Your task to perform on an android device: change your default location settings in chrome Image 0: 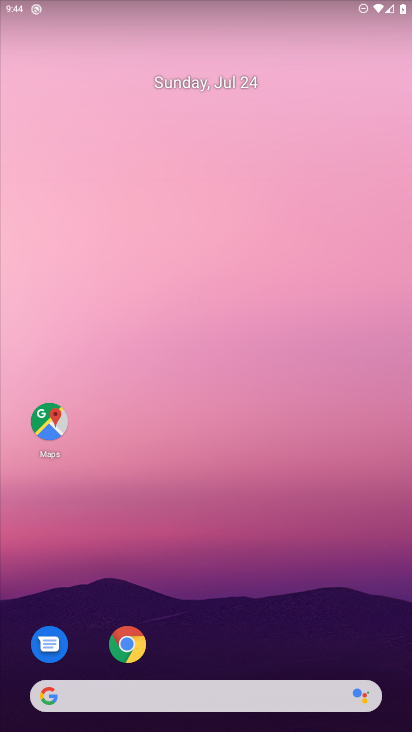
Step 0: drag from (306, 614) to (334, 21)
Your task to perform on an android device: change your default location settings in chrome Image 1: 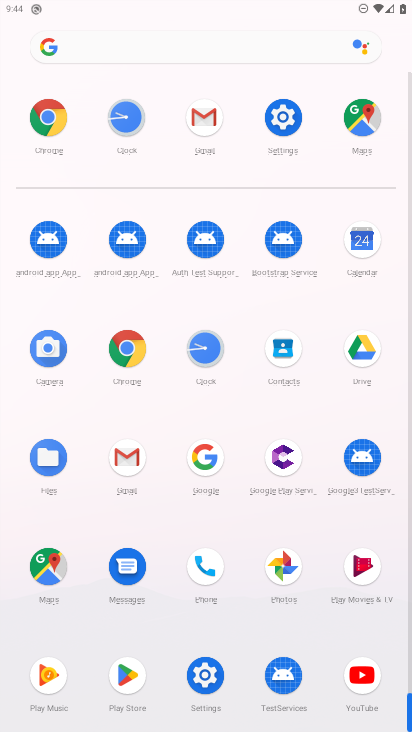
Step 1: click (130, 341)
Your task to perform on an android device: change your default location settings in chrome Image 2: 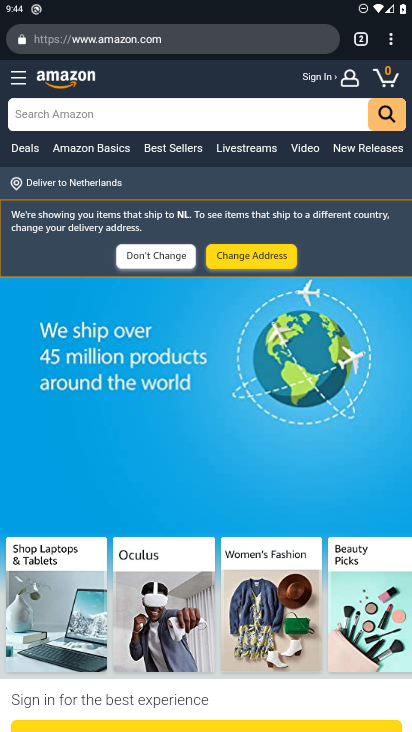
Step 2: press home button
Your task to perform on an android device: change your default location settings in chrome Image 3: 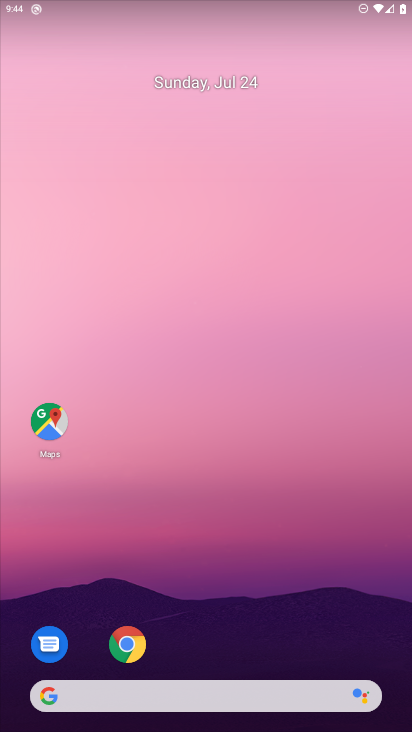
Step 3: drag from (276, 577) to (309, 102)
Your task to perform on an android device: change your default location settings in chrome Image 4: 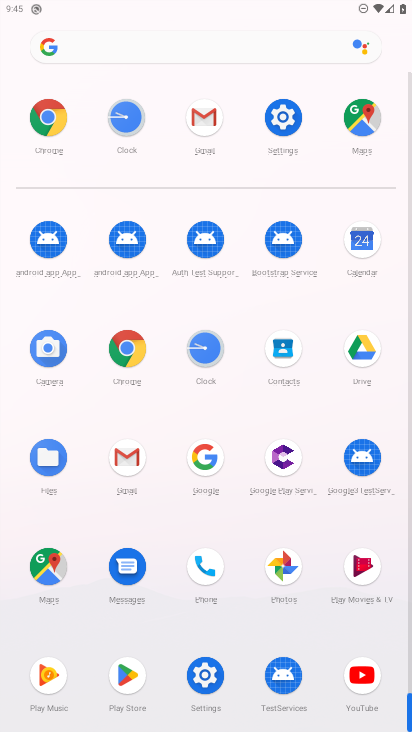
Step 4: drag from (147, 628) to (56, 57)
Your task to perform on an android device: change your default location settings in chrome Image 5: 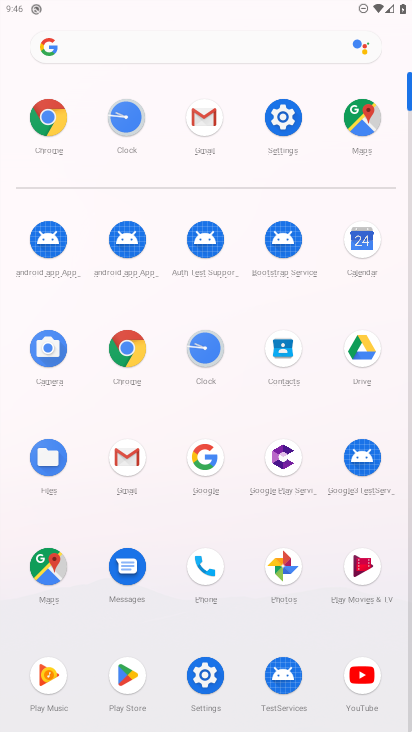
Step 5: click (186, 649)
Your task to perform on an android device: change your default location settings in chrome Image 6: 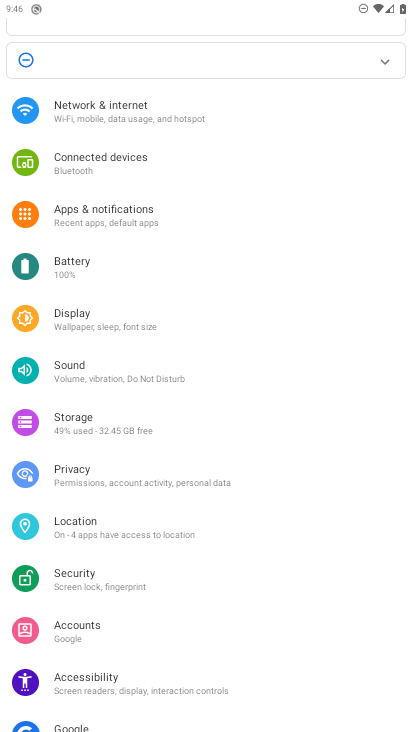
Step 6: press home button
Your task to perform on an android device: change your default location settings in chrome Image 7: 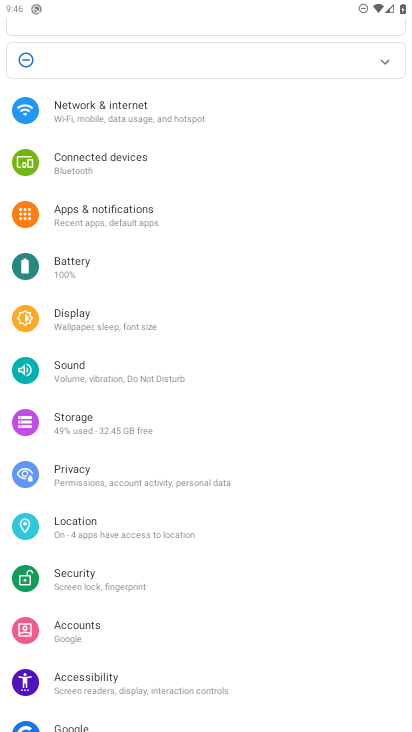
Step 7: press home button
Your task to perform on an android device: change your default location settings in chrome Image 8: 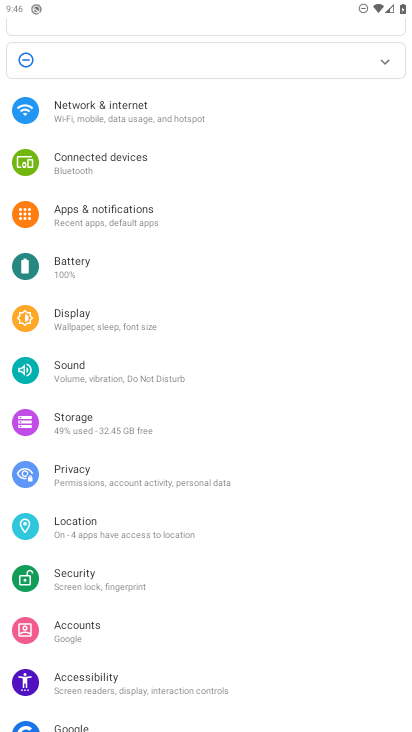
Step 8: drag from (345, 618) to (310, 47)
Your task to perform on an android device: change your default location settings in chrome Image 9: 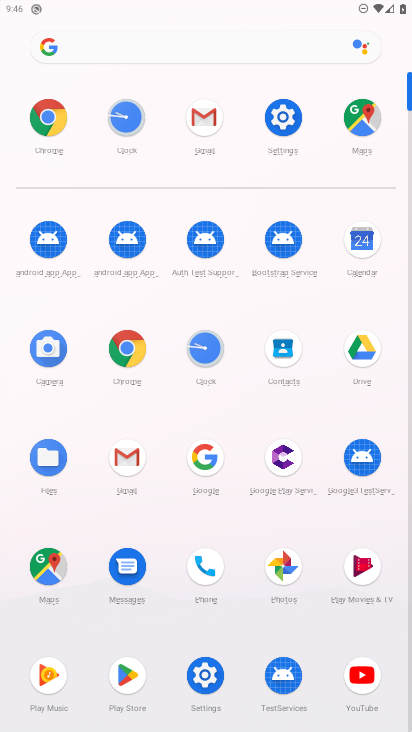
Step 9: click (148, 351)
Your task to perform on an android device: change your default location settings in chrome Image 10: 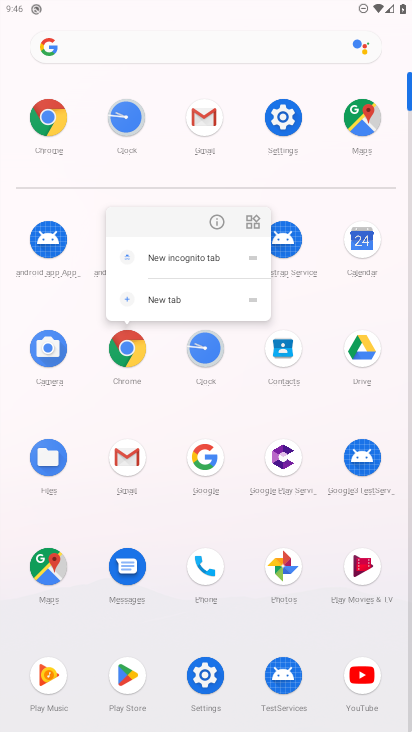
Step 10: click (219, 229)
Your task to perform on an android device: change your default location settings in chrome Image 11: 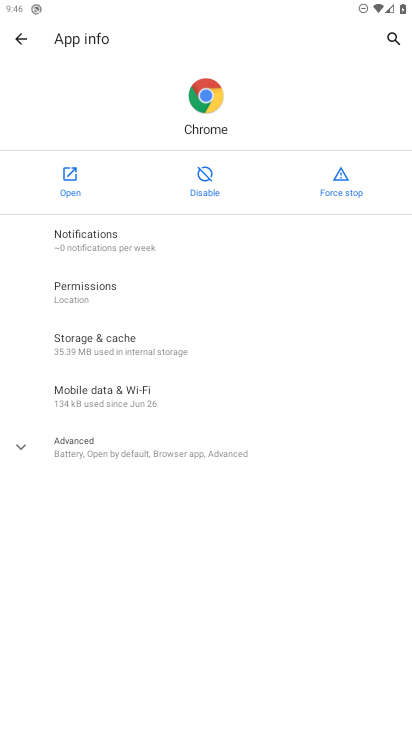
Step 11: click (108, 285)
Your task to perform on an android device: change your default location settings in chrome Image 12: 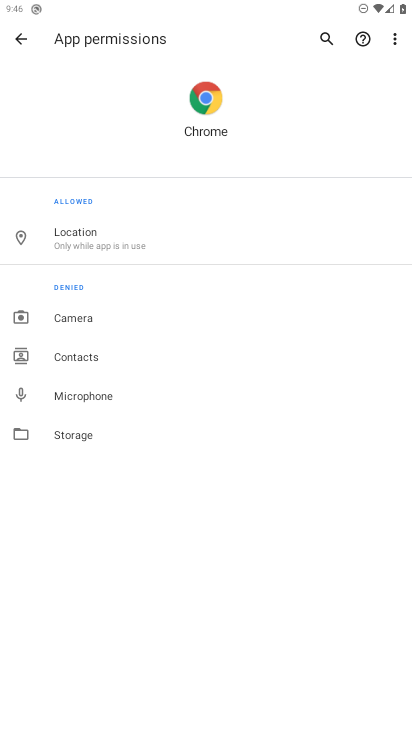
Step 12: click (107, 223)
Your task to perform on an android device: change your default location settings in chrome Image 13: 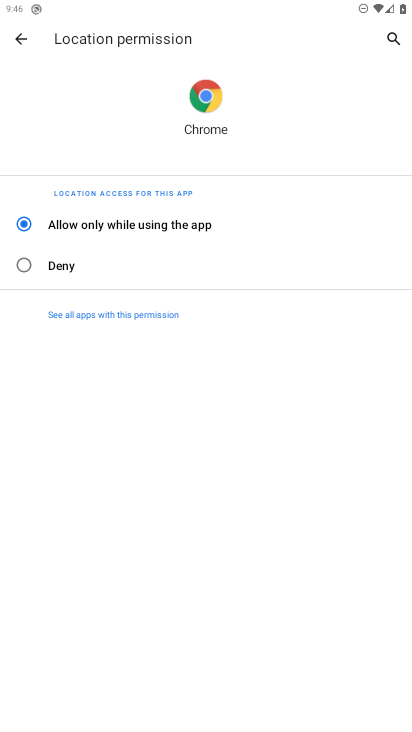
Step 13: click (24, 262)
Your task to perform on an android device: change your default location settings in chrome Image 14: 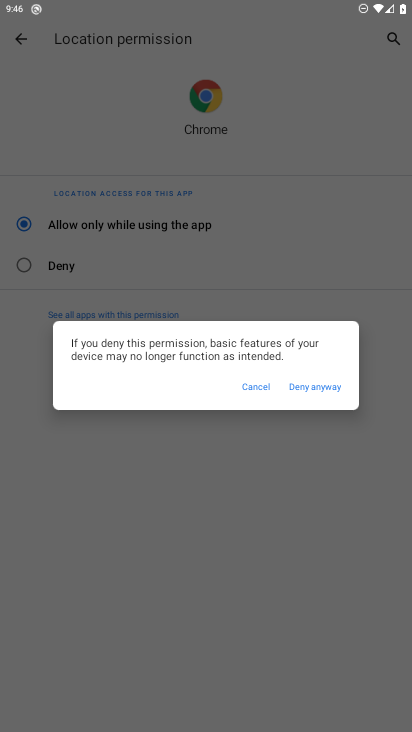
Step 14: click (316, 384)
Your task to perform on an android device: change your default location settings in chrome Image 15: 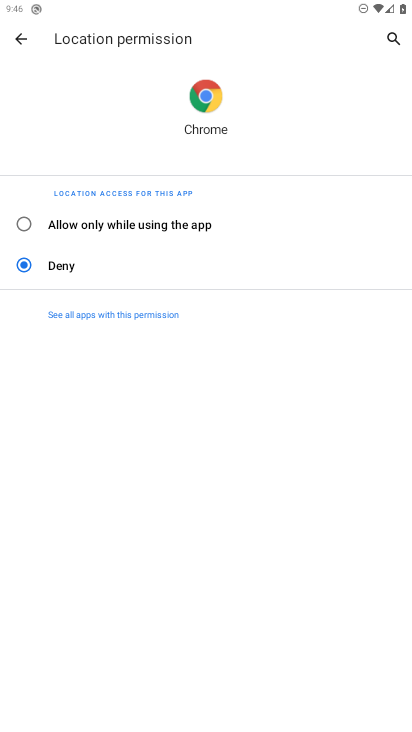
Step 15: task complete